Your task to perform on an android device: Open internet settings Image 0: 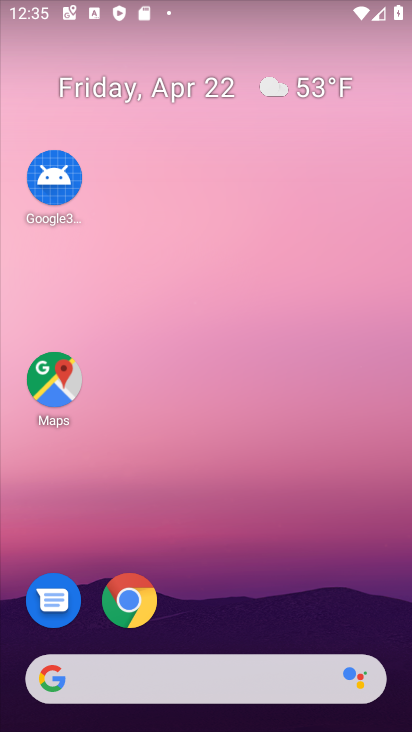
Step 0: drag from (215, 562) to (209, 117)
Your task to perform on an android device: Open internet settings Image 1: 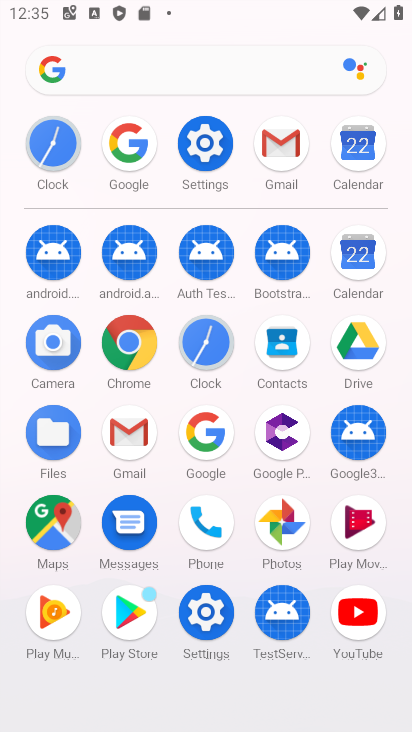
Step 1: click (201, 145)
Your task to perform on an android device: Open internet settings Image 2: 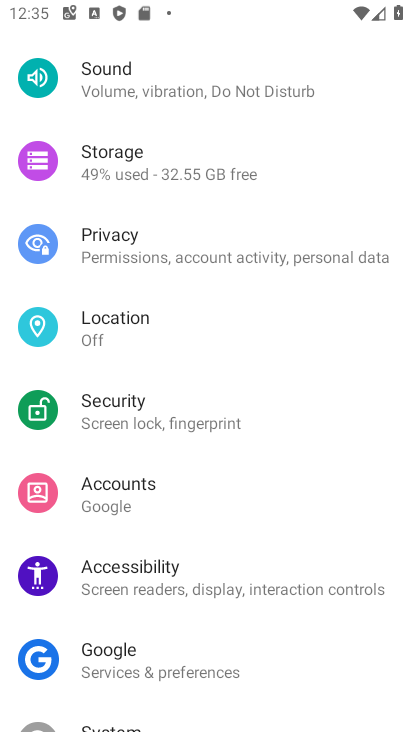
Step 2: drag from (195, 199) to (187, 434)
Your task to perform on an android device: Open internet settings Image 3: 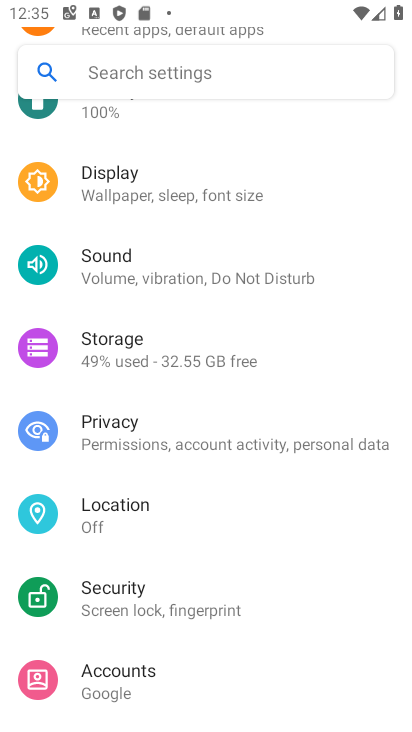
Step 3: drag from (296, 175) to (289, 491)
Your task to perform on an android device: Open internet settings Image 4: 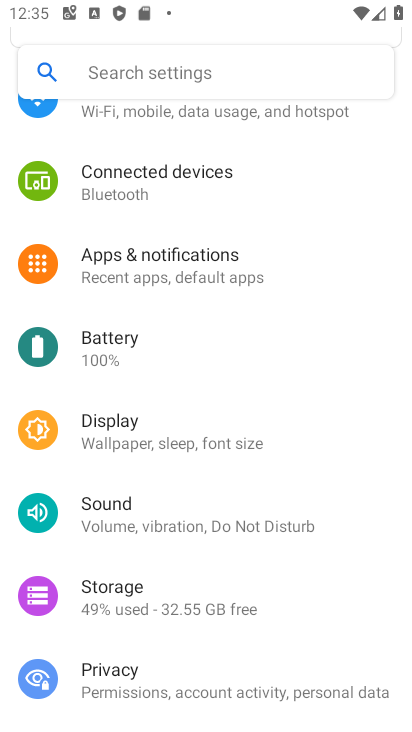
Step 4: click (243, 111)
Your task to perform on an android device: Open internet settings Image 5: 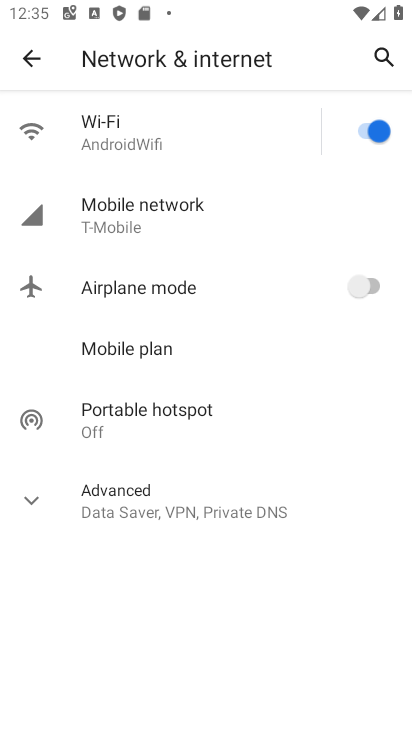
Step 5: task complete